Your task to perform on an android device: open app "Messenger Lite" (install if not already installed) and enter user name: "cataclysmic@outlook.com" and password: "victoriously" Image 0: 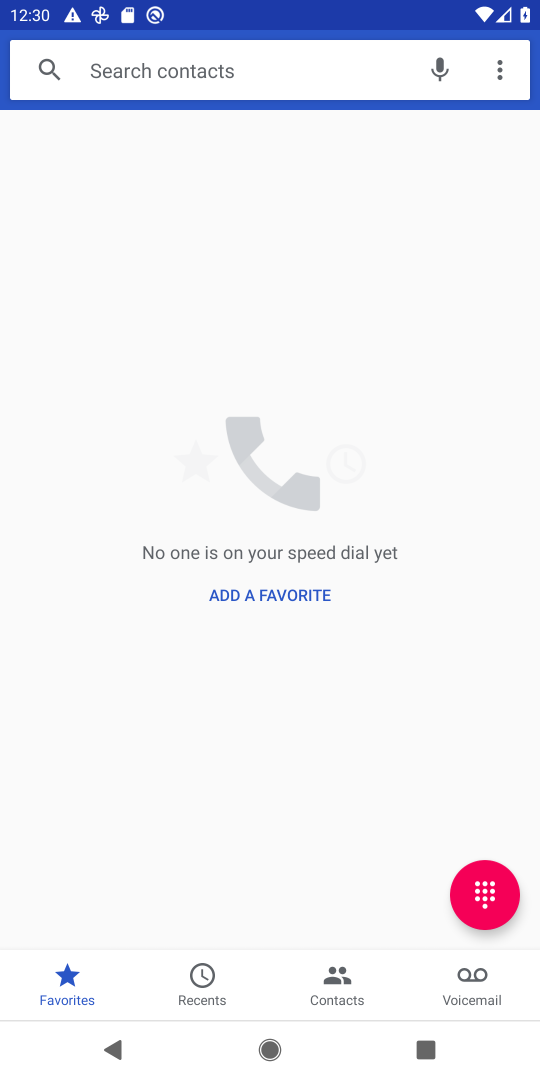
Step 0: press home button
Your task to perform on an android device: open app "Messenger Lite" (install if not already installed) and enter user name: "cataclysmic@outlook.com" and password: "victoriously" Image 1: 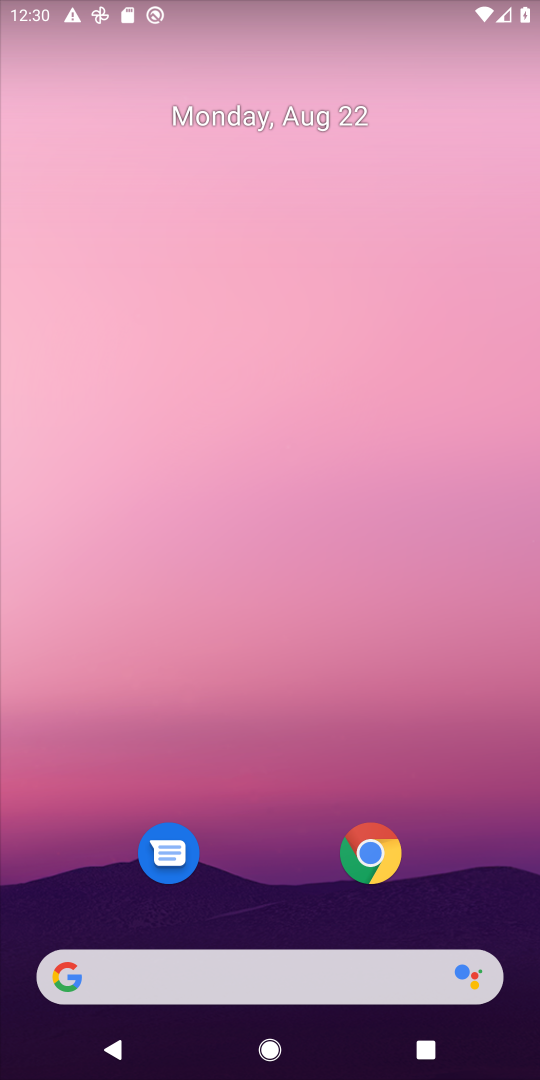
Step 1: drag from (225, 924) to (245, 282)
Your task to perform on an android device: open app "Messenger Lite" (install if not already installed) and enter user name: "cataclysmic@outlook.com" and password: "victoriously" Image 2: 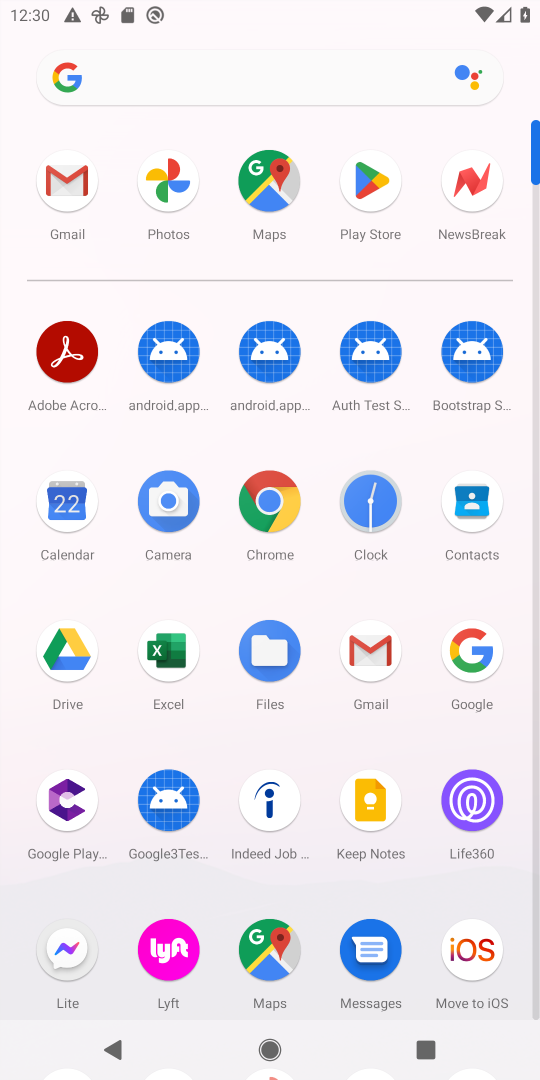
Step 2: click (373, 167)
Your task to perform on an android device: open app "Messenger Lite" (install if not already installed) and enter user name: "cataclysmic@outlook.com" and password: "victoriously" Image 3: 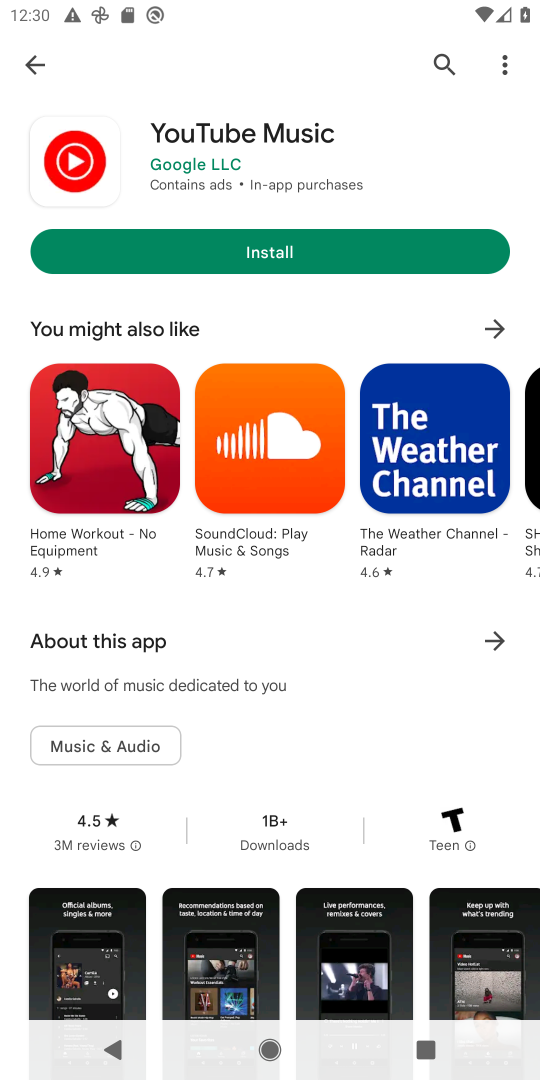
Step 3: click (46, 66)
Your task to perform on an android device: open app "Messenger Lite" (install if not already installed) and enter user name: "cataclysmic@outlook.com" and password: "victoriously" Image 4: 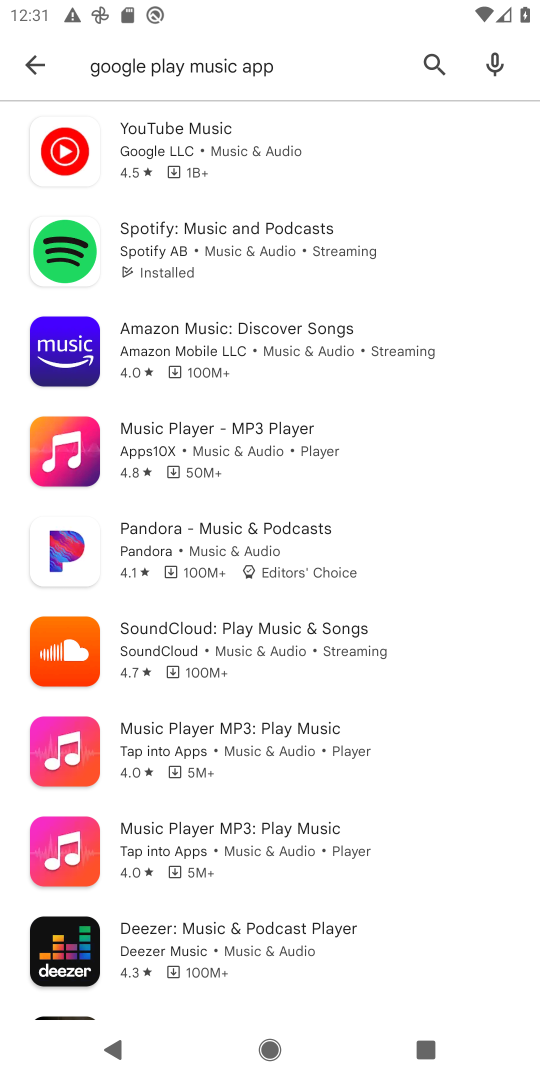
Step 4: click (35, 81)
Your task to perform on an android device: open app "Messenger Lite" (install if not already installed) and enter user name: "cataclysmic@outlook.com" and password: "victoriously" Image 5: 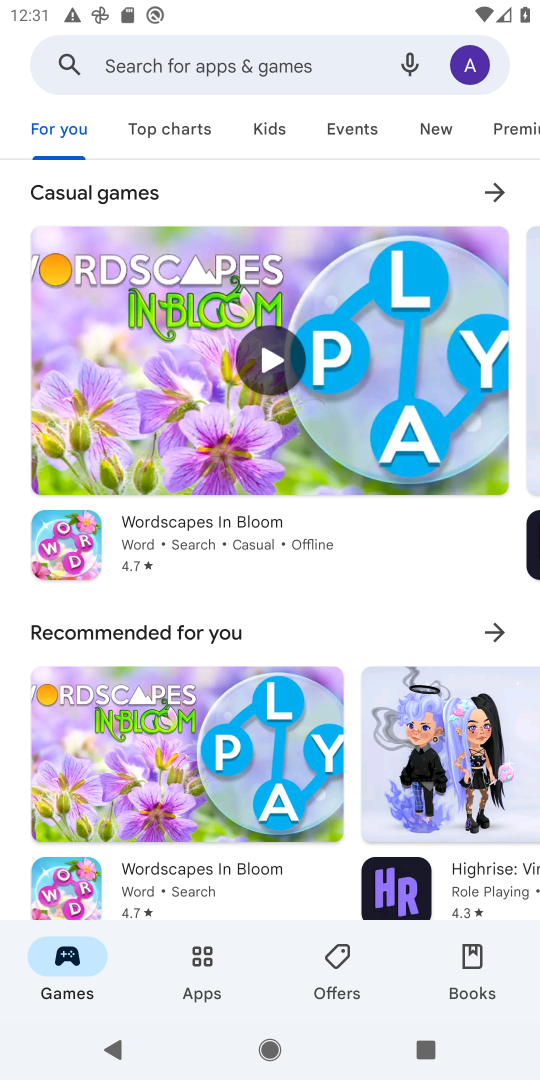
Step 5: click (222, 53)
Your task to perform on an android device: open app "Messenger Lite" (install if not already installed) and enter user name: "cataclysmic@outlook.com" and password: "victoriously" Image 6: 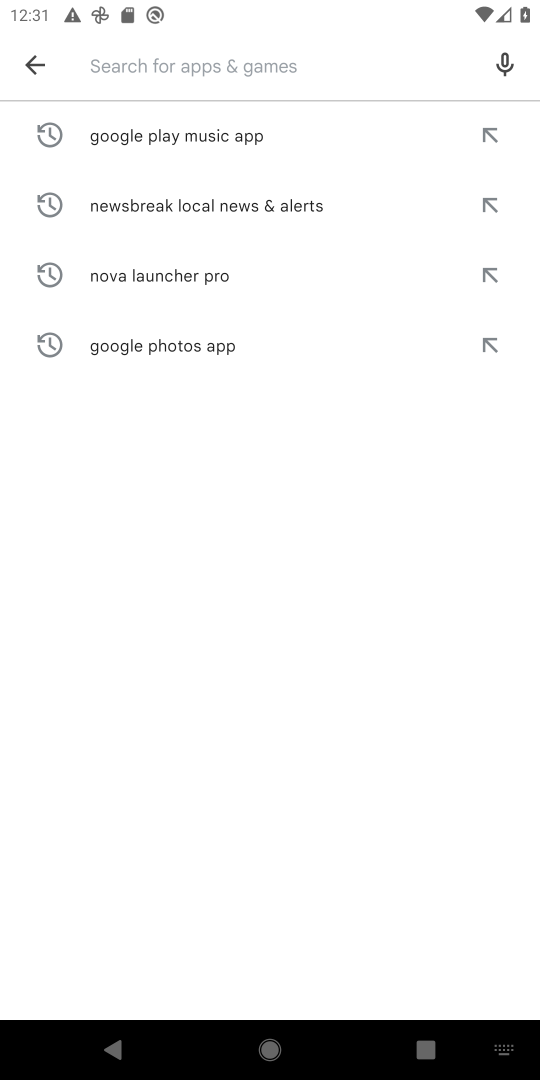
Step 6: type "Messenger Lite "
Your task to perform on an android device: open app "Messenger Lite" (install if not already installed) and enter user name: "cataclysmic@outlook.com" and password: "victoriously" Image 7: 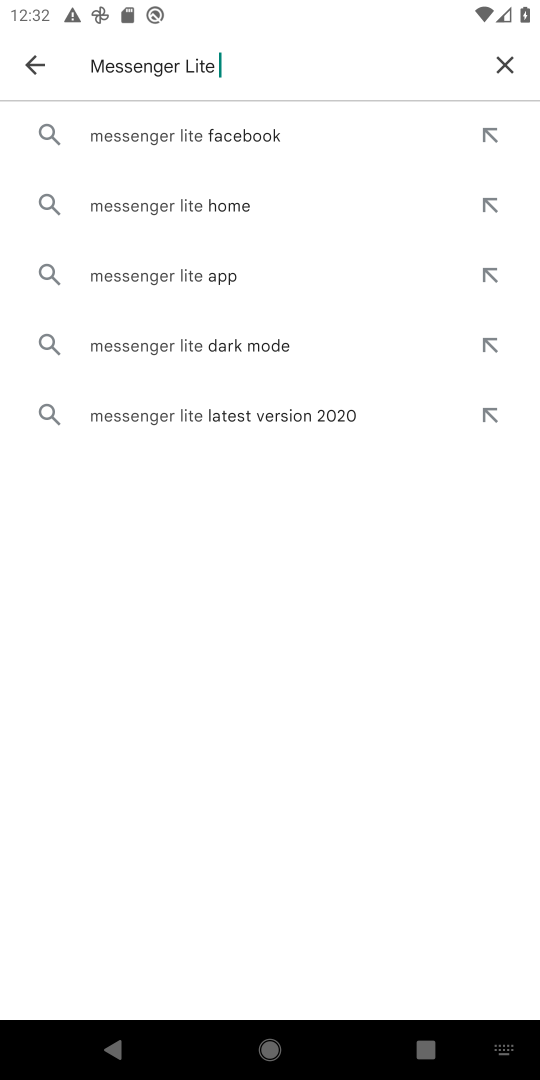
Step 7: click (192, 130)
Your task to perform on an android device: open app "Messenger Lite" (install if not already installed) and enter user name: "cataclysmic@outlook.com" and password: "victoriously" Image 8: 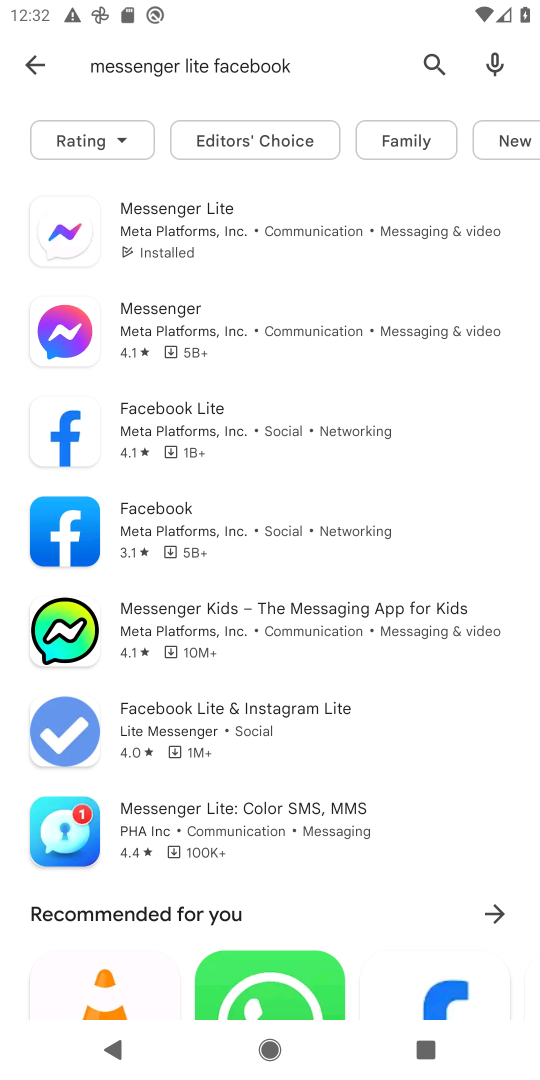
Step 8: click (166, 201)
Your task to perform on an android device: open app "Messenger Lite" (install if not already installed) and enter user name: "cataclysmic@outlook.com" and password: "victoriously" Image 9: 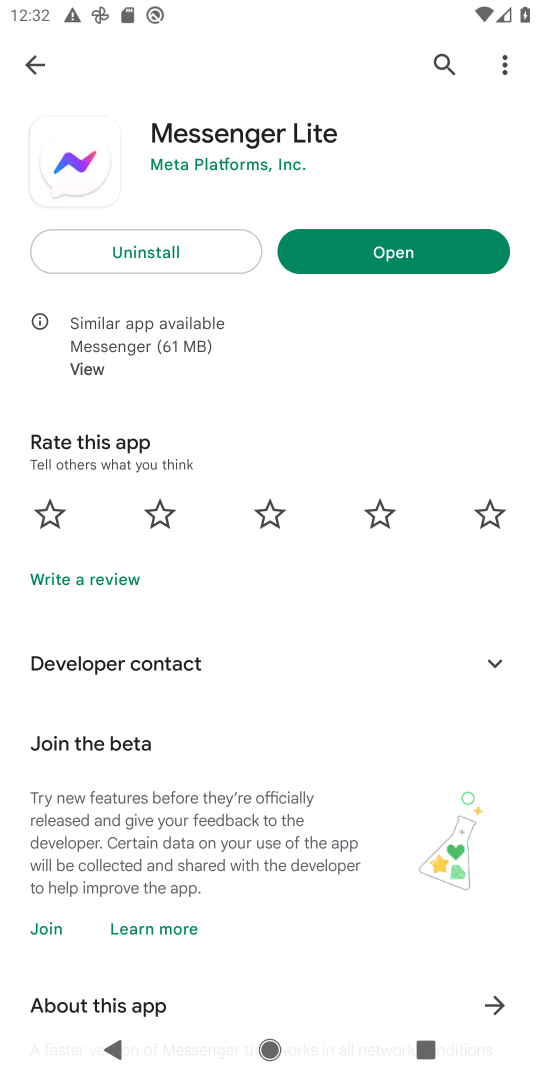
Step 9: click (381, 246)
Your task to perform on an android device: open app "Messenger Lite" (install if not already installed) and enter user name: "cataclysmic@outlook.com" and password: "victoriously" Image 10: 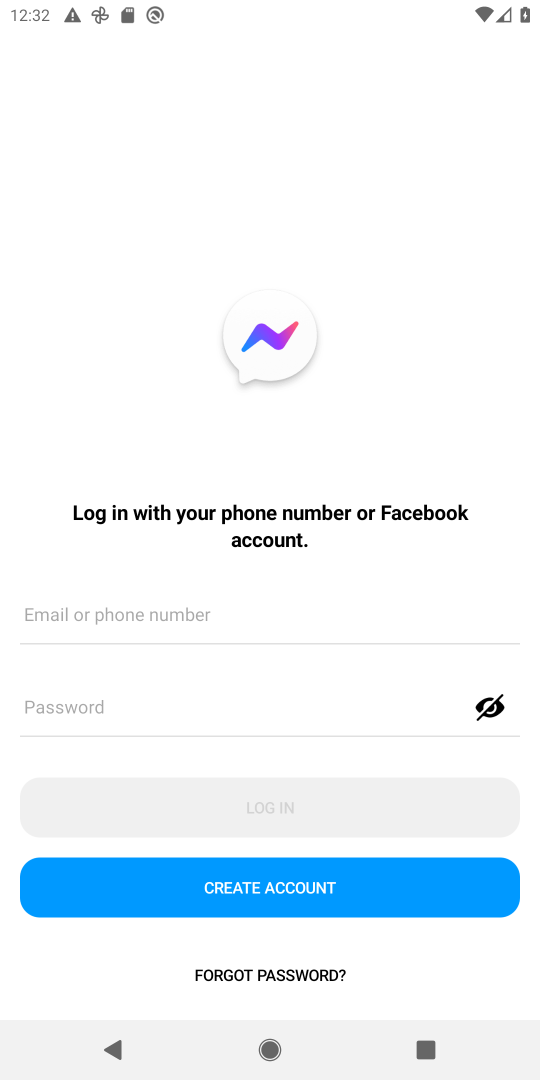
Step 10: task complete